Your task to perform on an android device: Check the weather Image 0: 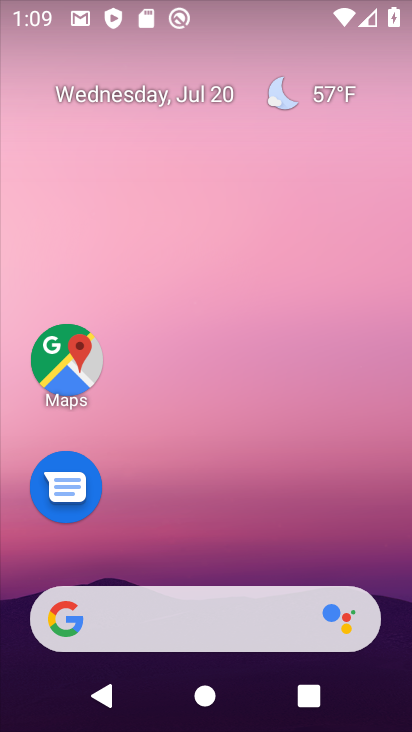
Step 0: click (164, 633)
Your task to perform on an android device: Check the weather Image 1: 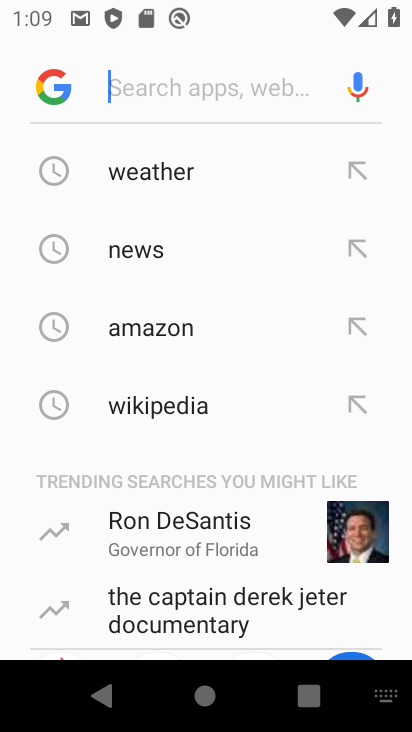
Step 1: click (174, 182)
Your task to perform on an android device: Check the weather Image 2: 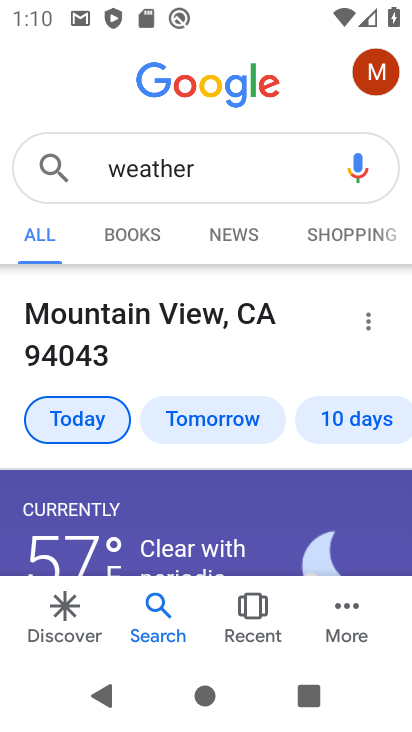
Step 2: task complete